Your task to perform on an android device: Go to CNN.com Image 0: 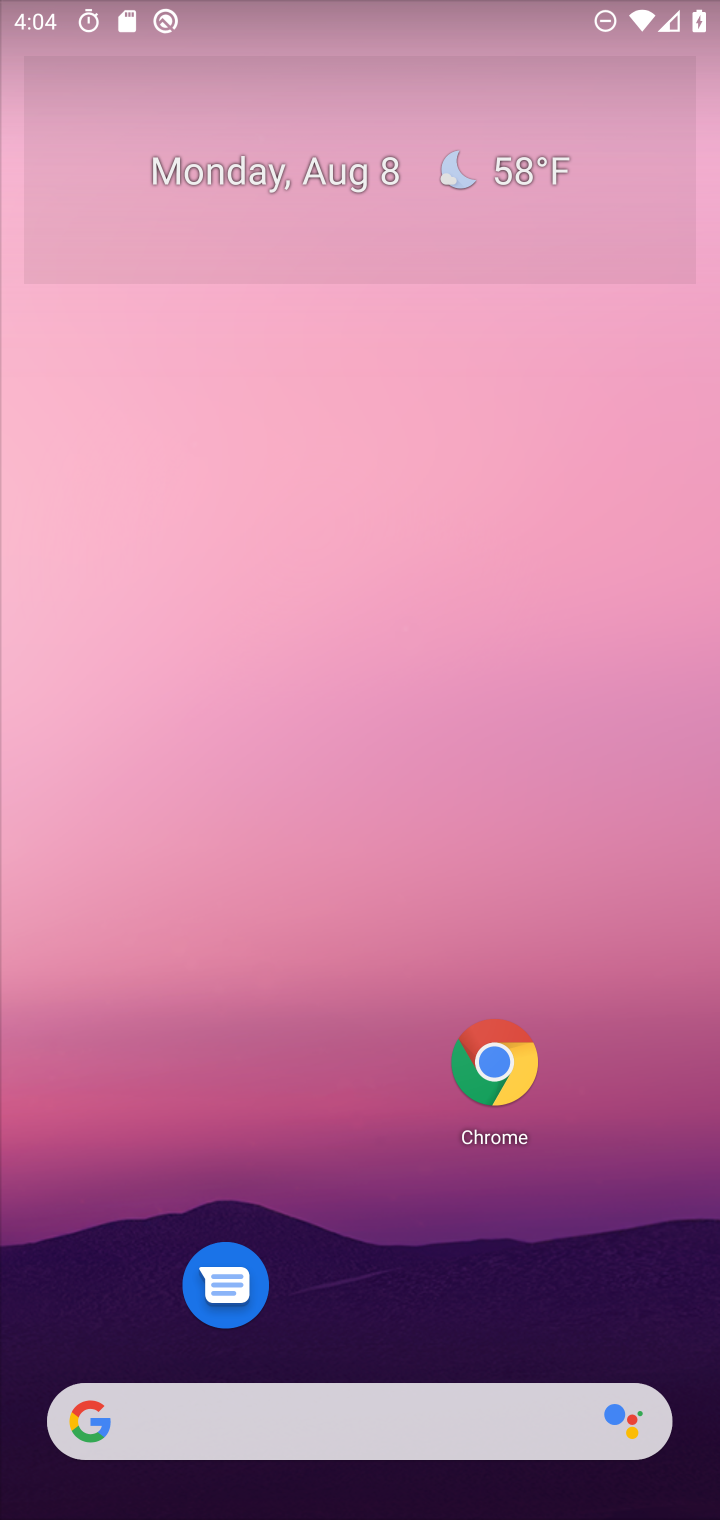
Step 0: click (518, 1067)
Your task to perform on an android device: Go to CNN.com Image 1: 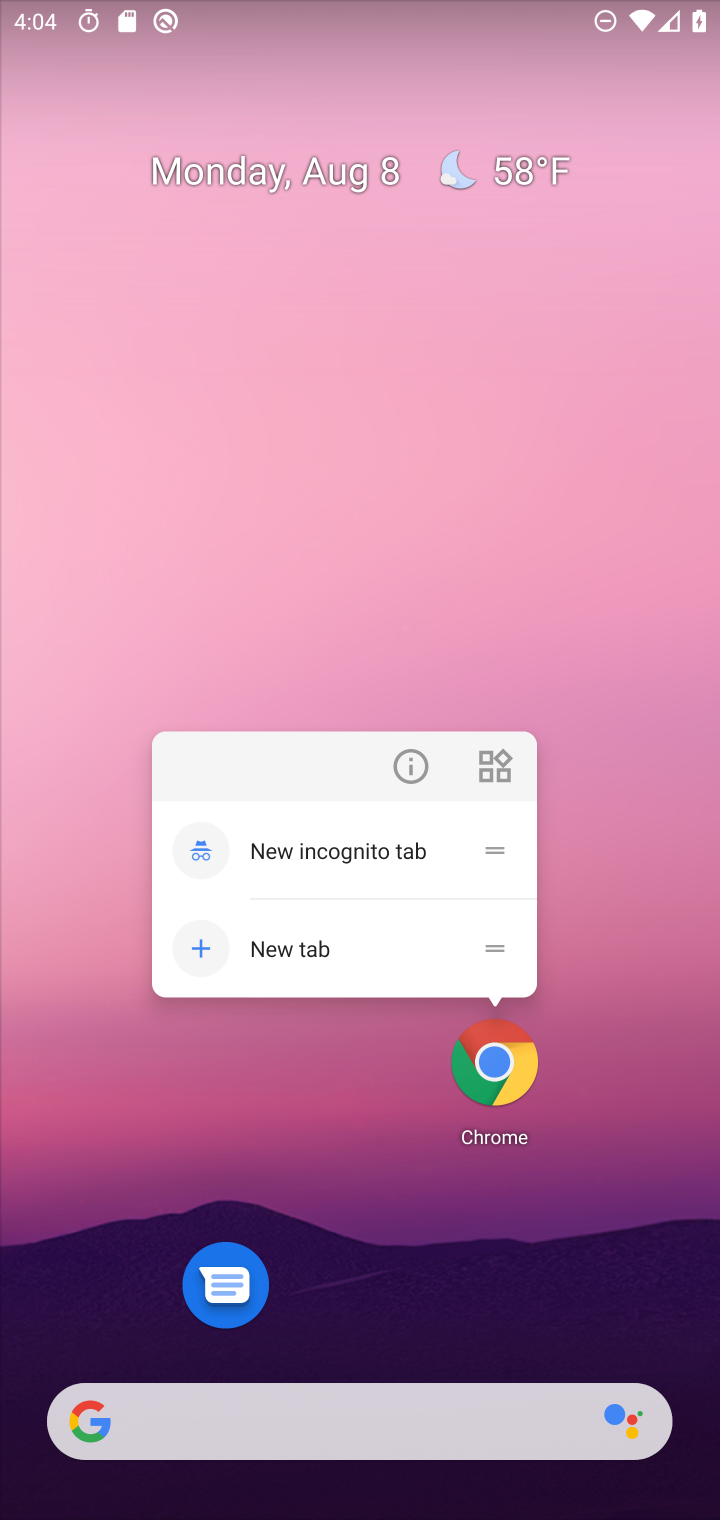
Step 1: click (492, 1055)
Your task to perform on an android device: Go to CNN.com Image 2: 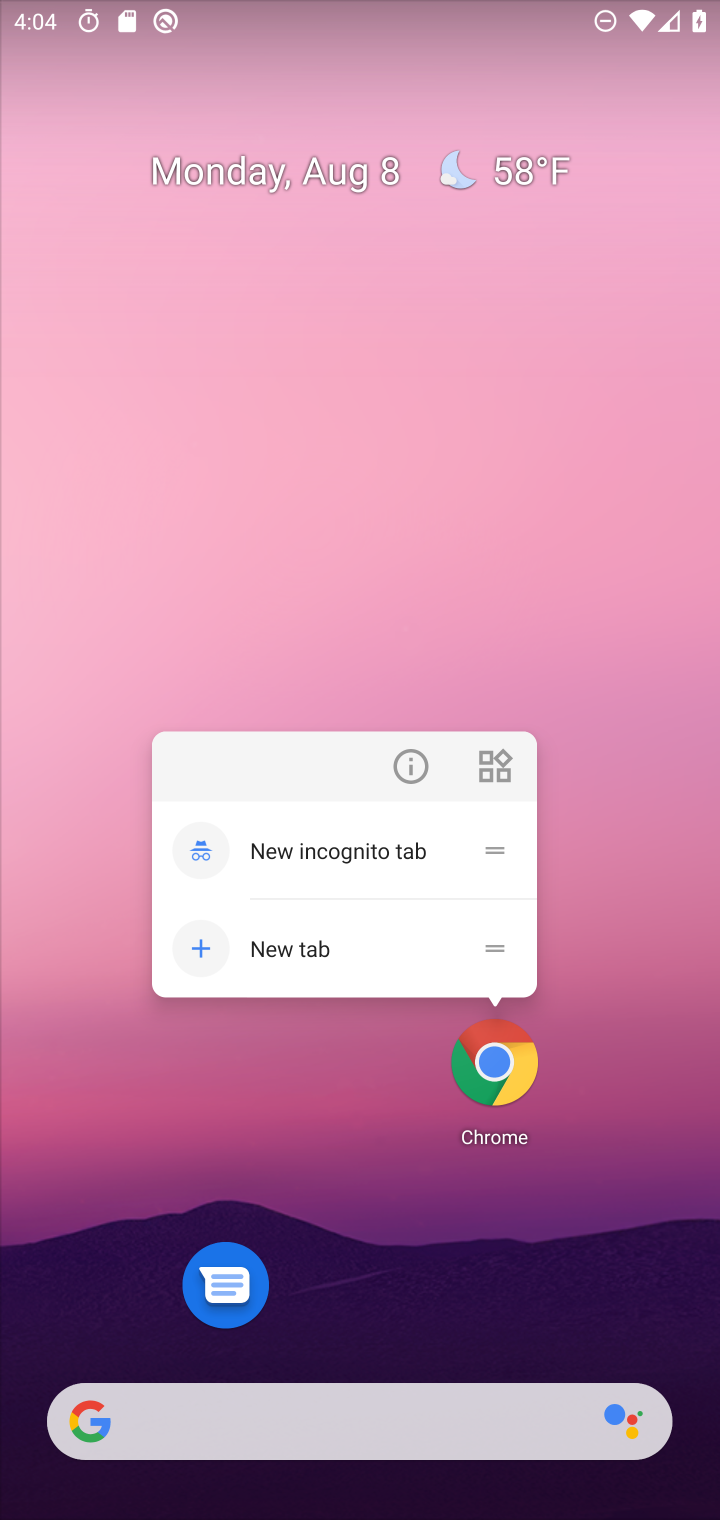
Step 2: click (492, 1055)
Your task to perform on an android device: Go to CNN.com Image 3: 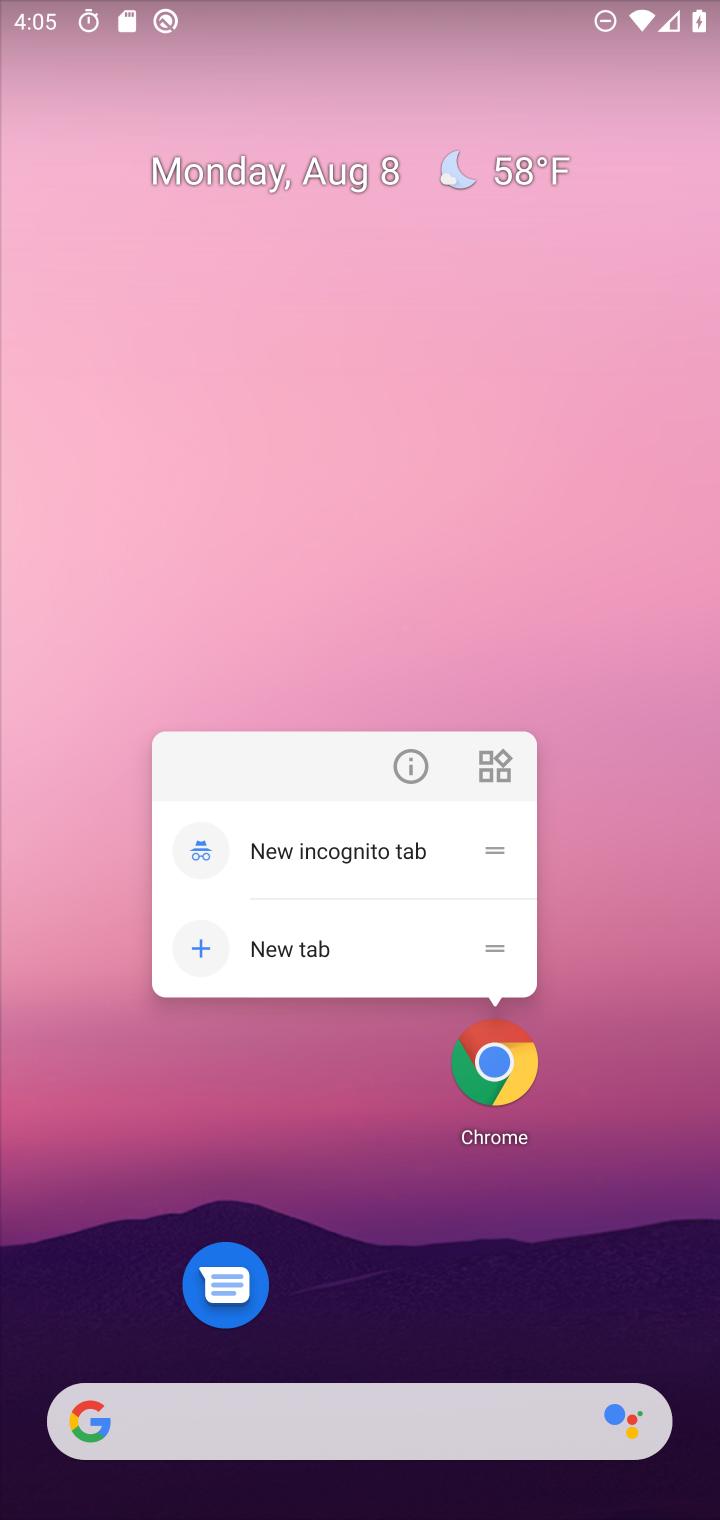
Step 3: click (492, 1055)
Your task to perform on an android device: Go to CNN.com Image 4: 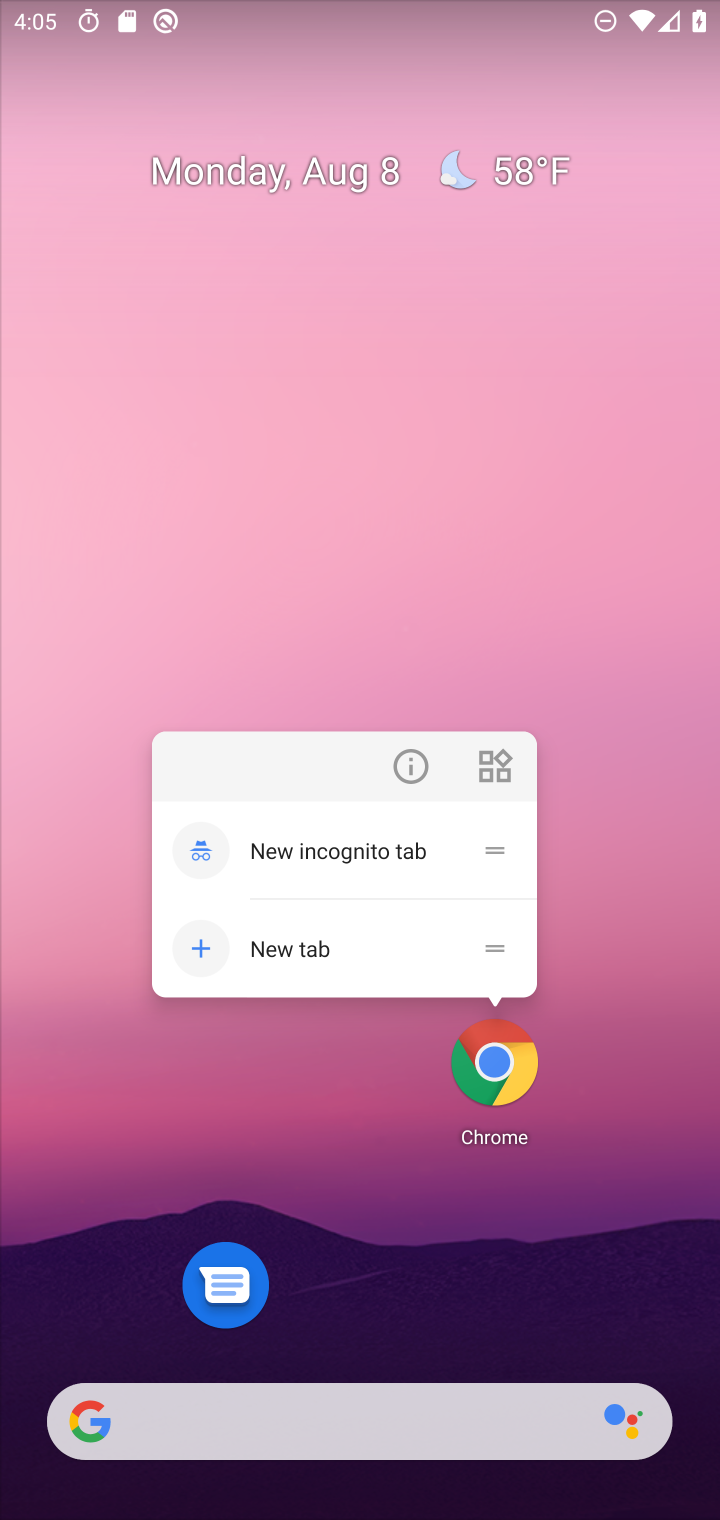
Step 4: click (492, 1075)
Your task to perform on an android device: Go to CNN.com Image 5: 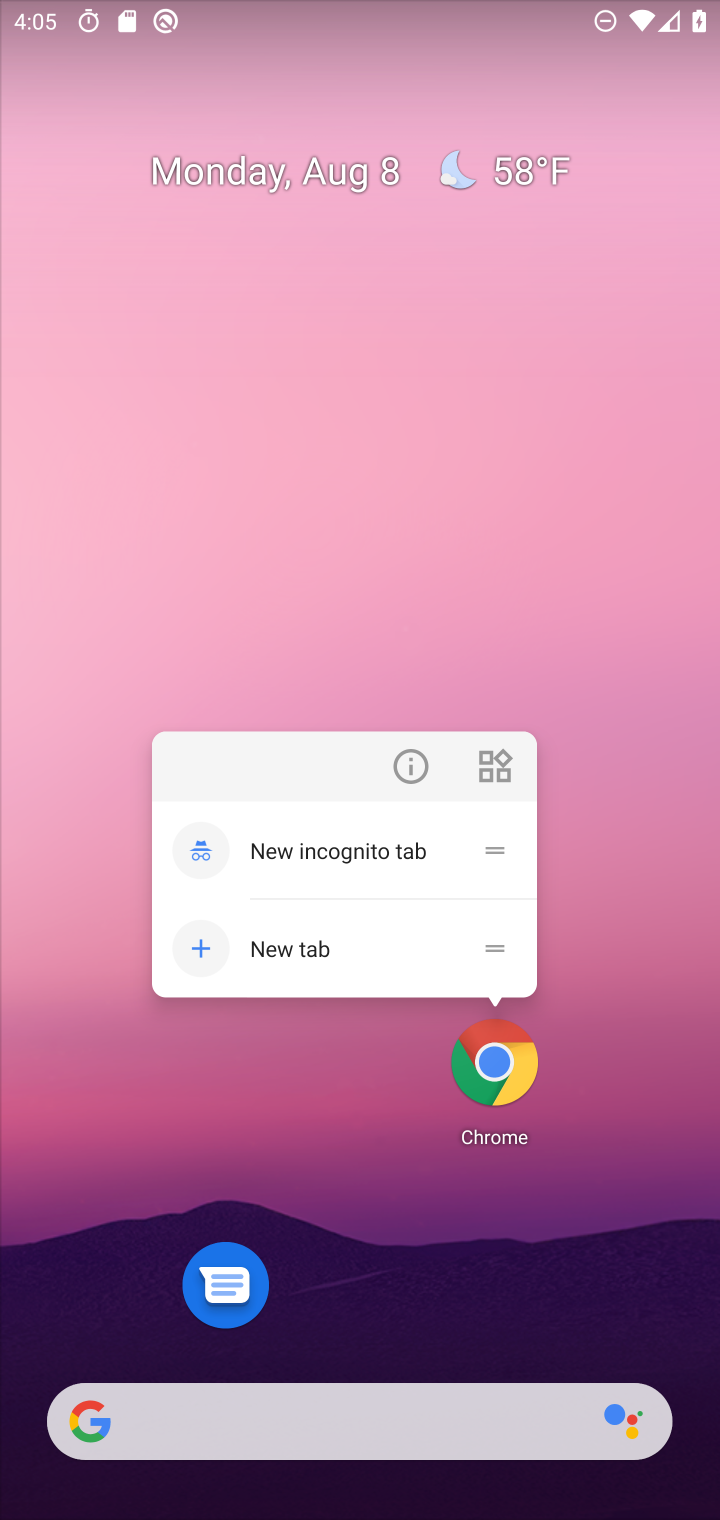
Step 5: click (498, 1056)
Your task to perform on an android device: Go to CNN.com Image 6: 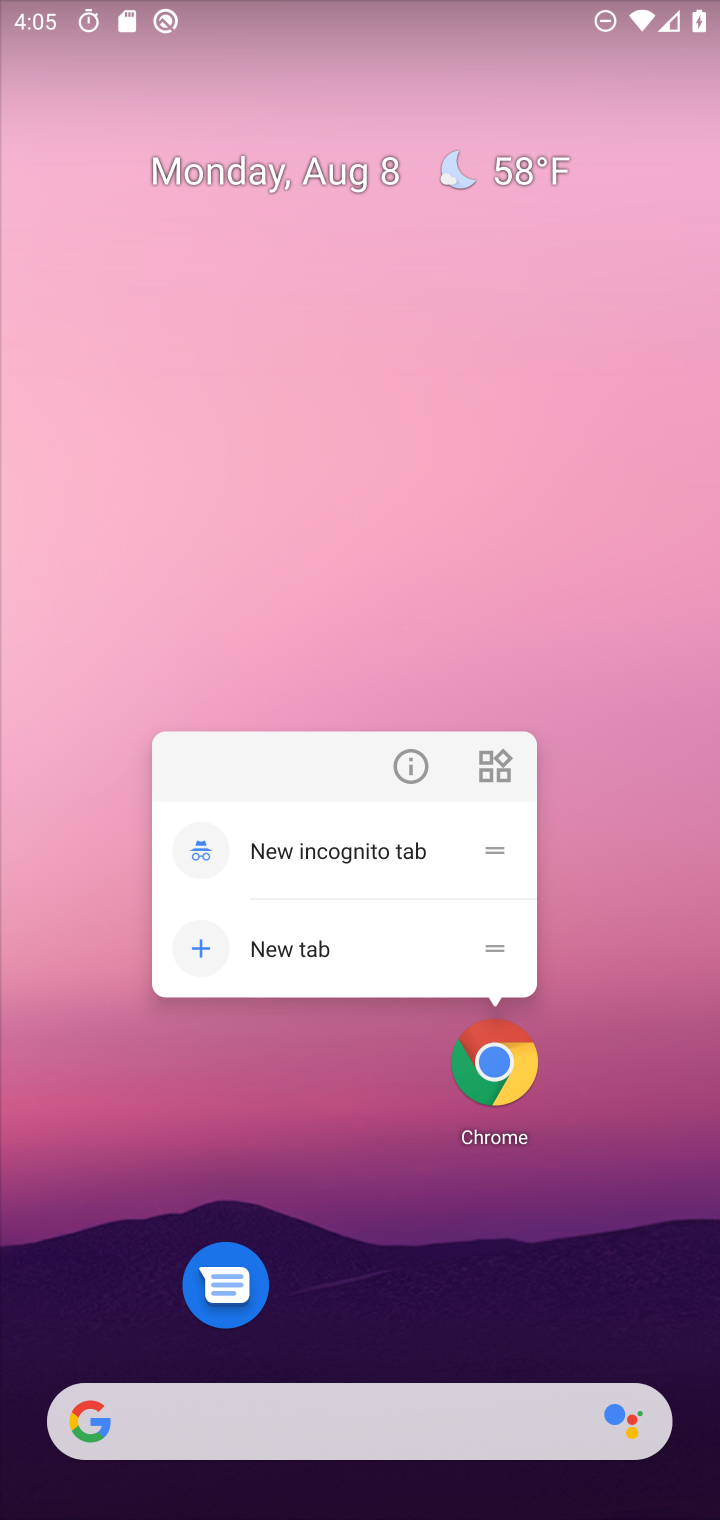
Step 6: click (505, 1054)
Your task to perform on an android device: Go to CNN.com Image 7: 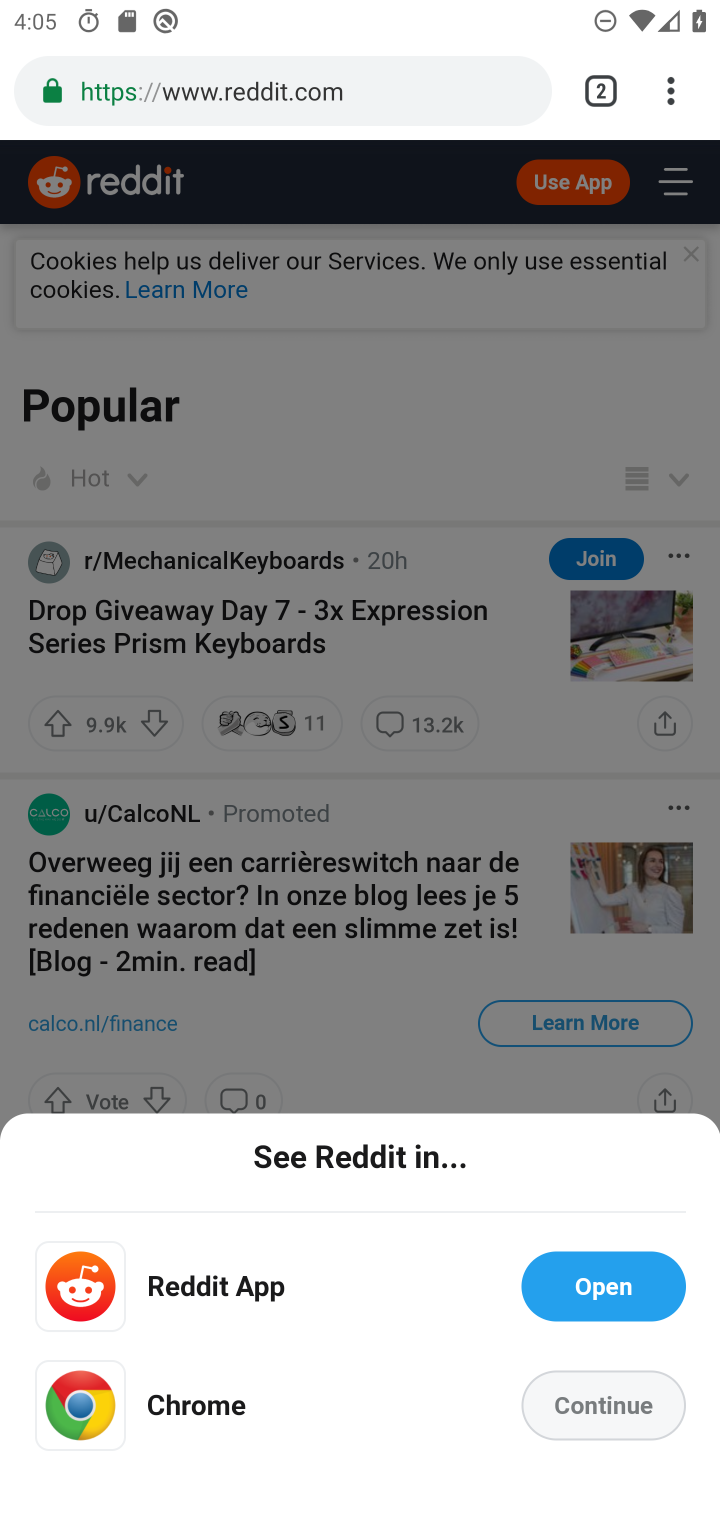
Step 7: click (594, 64)
Your task to perform on an android device: Go to CNN.com Image 8: 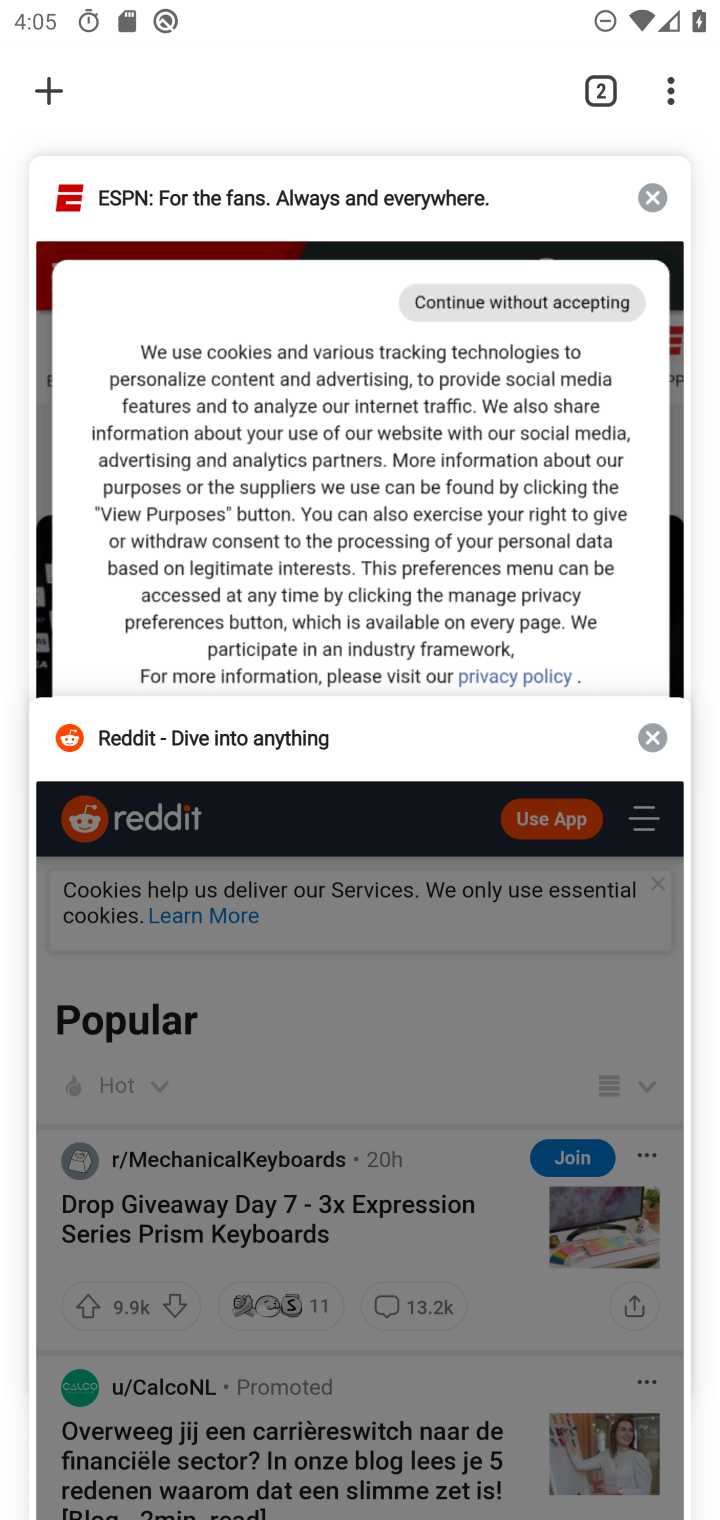
Step 8: click (65, 88)
Your task to perform on an android device: Go to CNN.com Image 9: 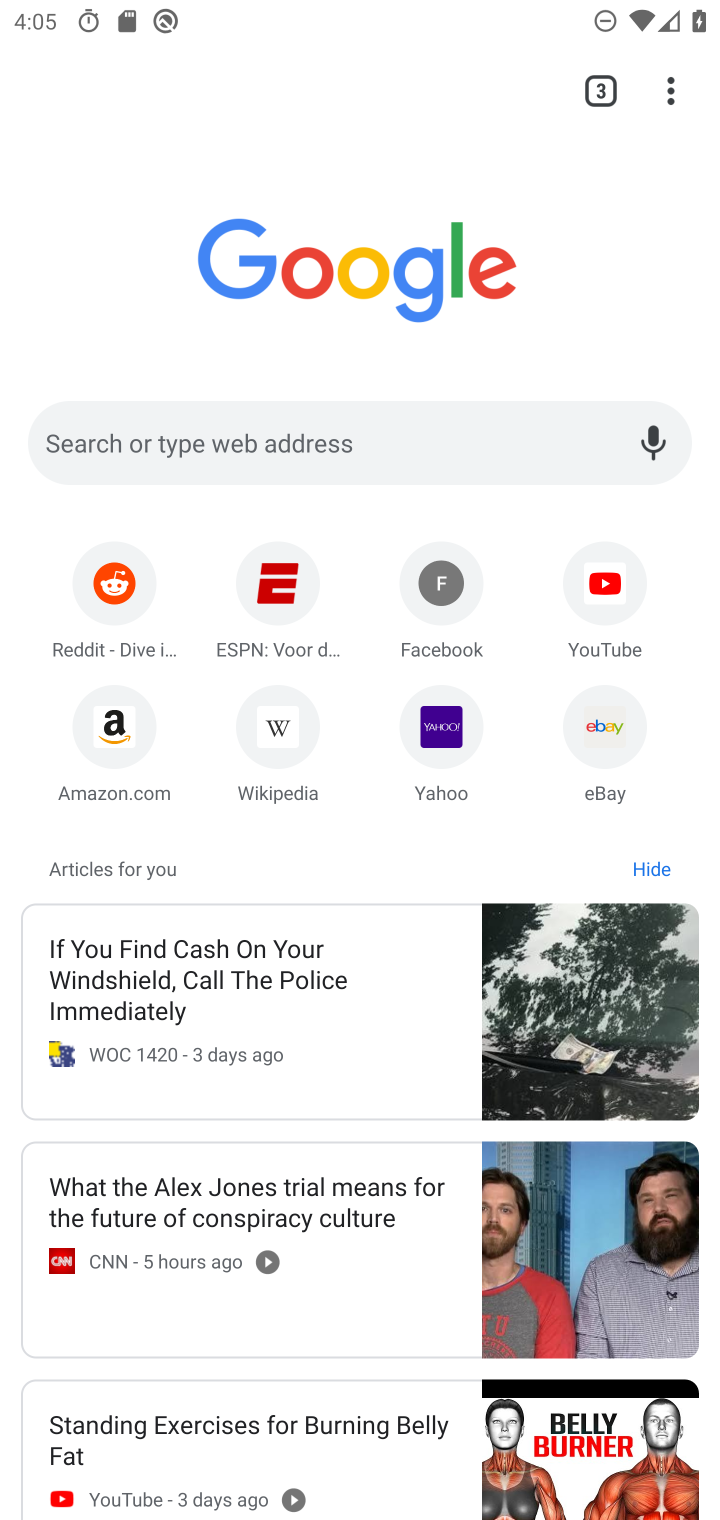
Step 9: click (313, 438)
Your task to perform on an android device: Go to CNN.com Image 10: 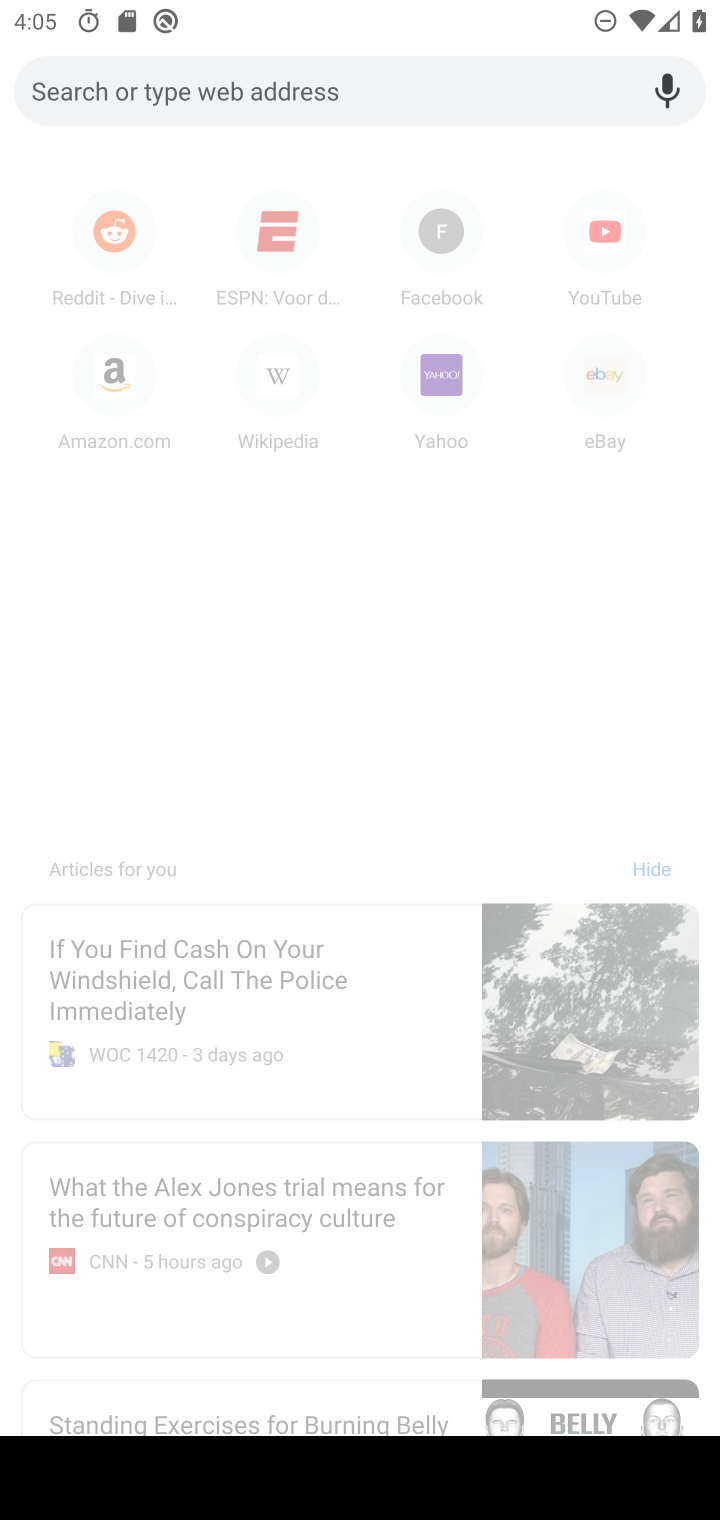
Step 10: type "cnn.com"
Your task to perform on an android device: Go to CNN.com Image 11: 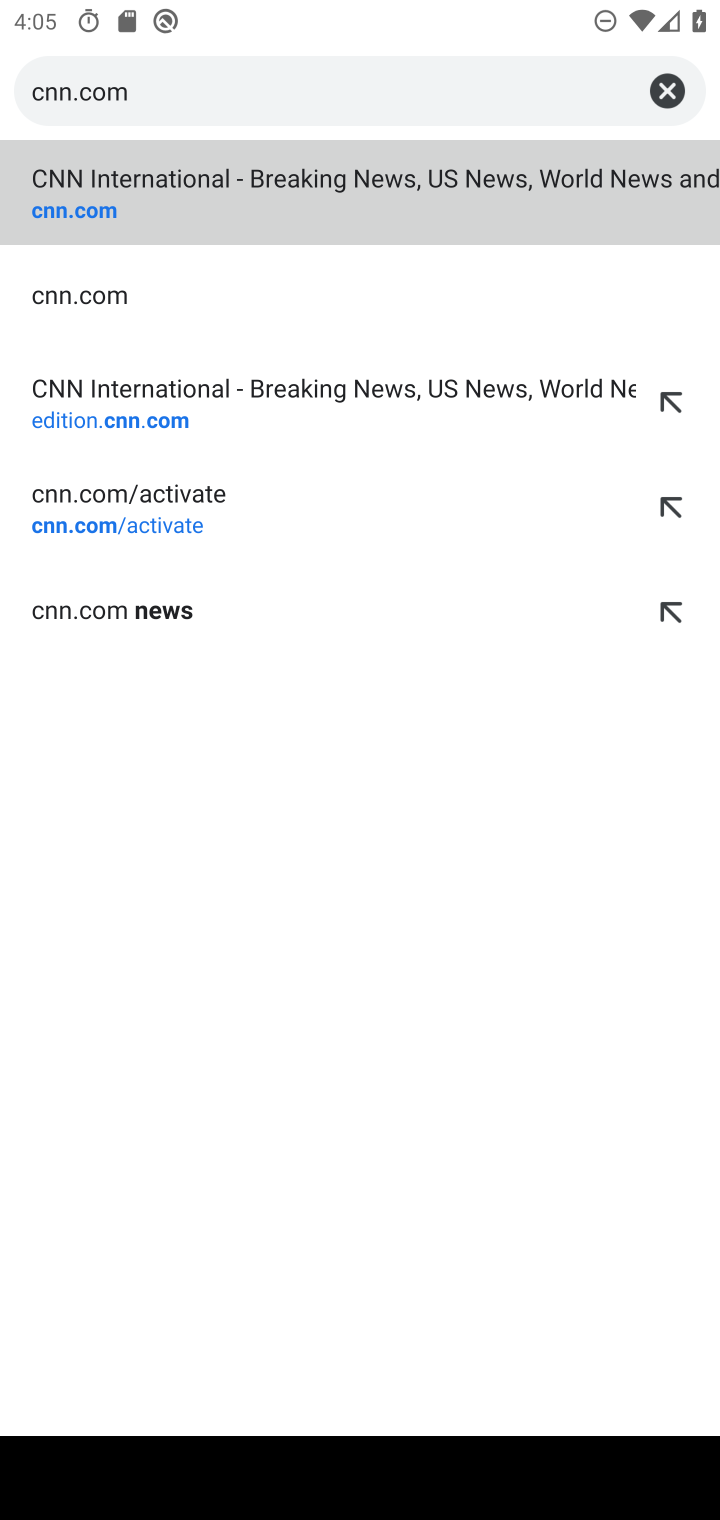
Step 11: click (241, 151)
Your task to perform on an android device: Go to CNN.com Image 12: 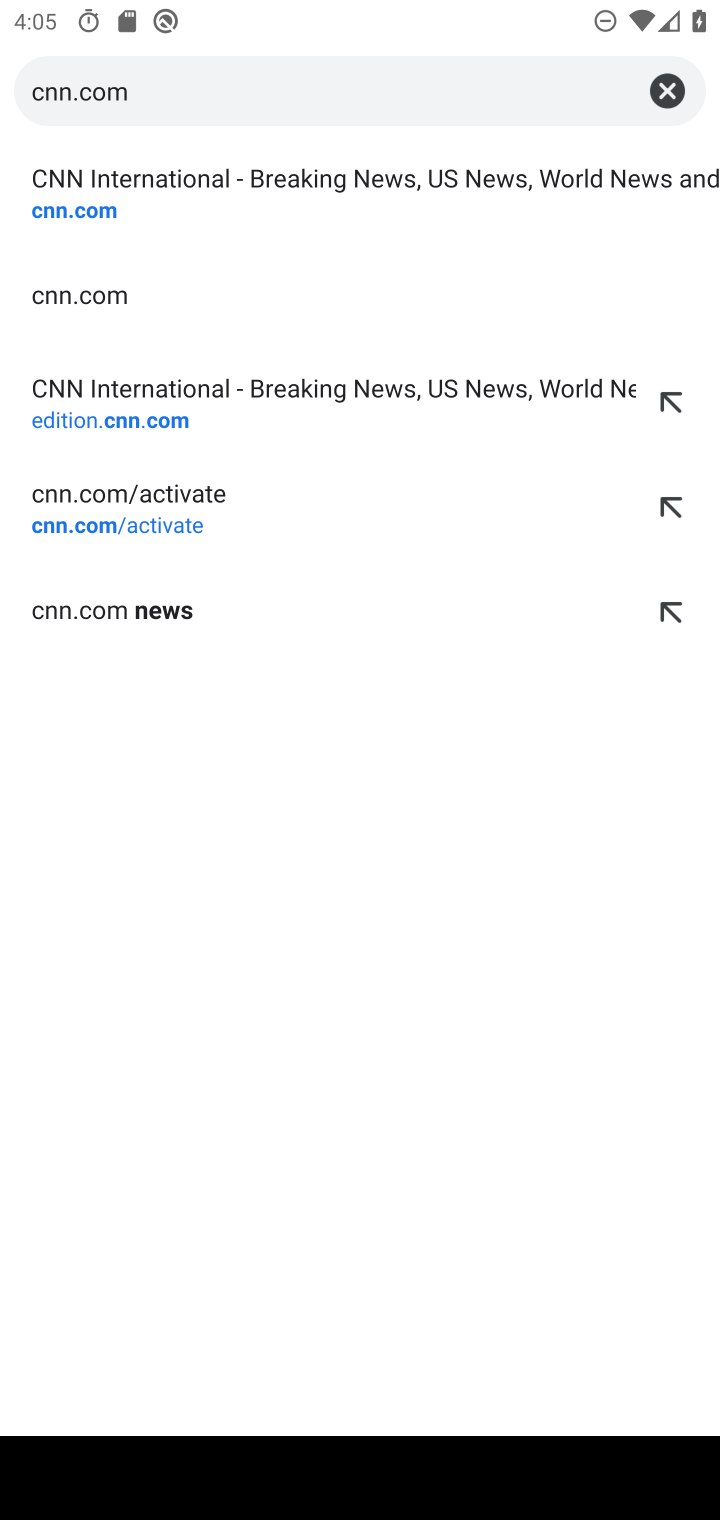
Step 12: click (129, 165)
Your task to perform on an android device: Go to CNN.com Image 13: 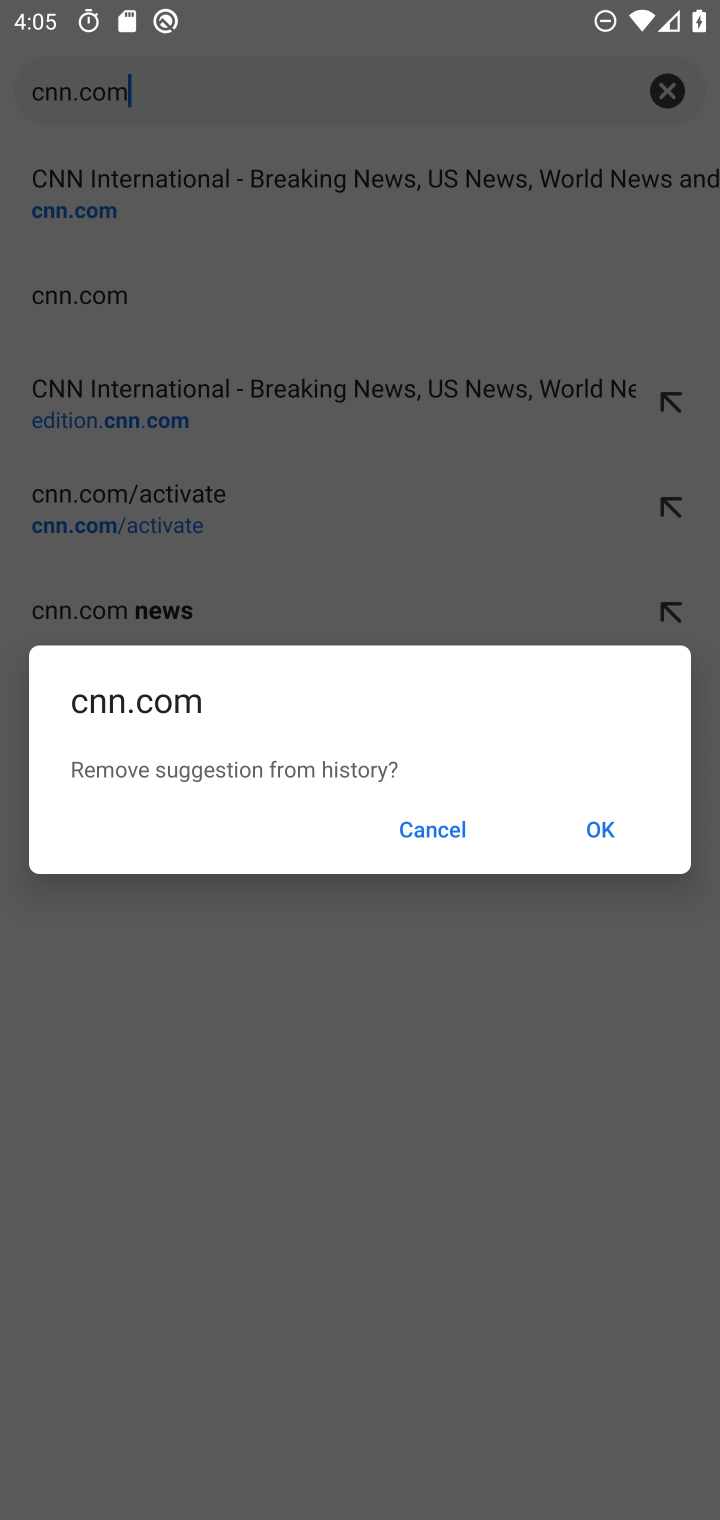
Step 13: click (435, 832)
Your task to perform on an android device: Go to CNN.com Image 14: 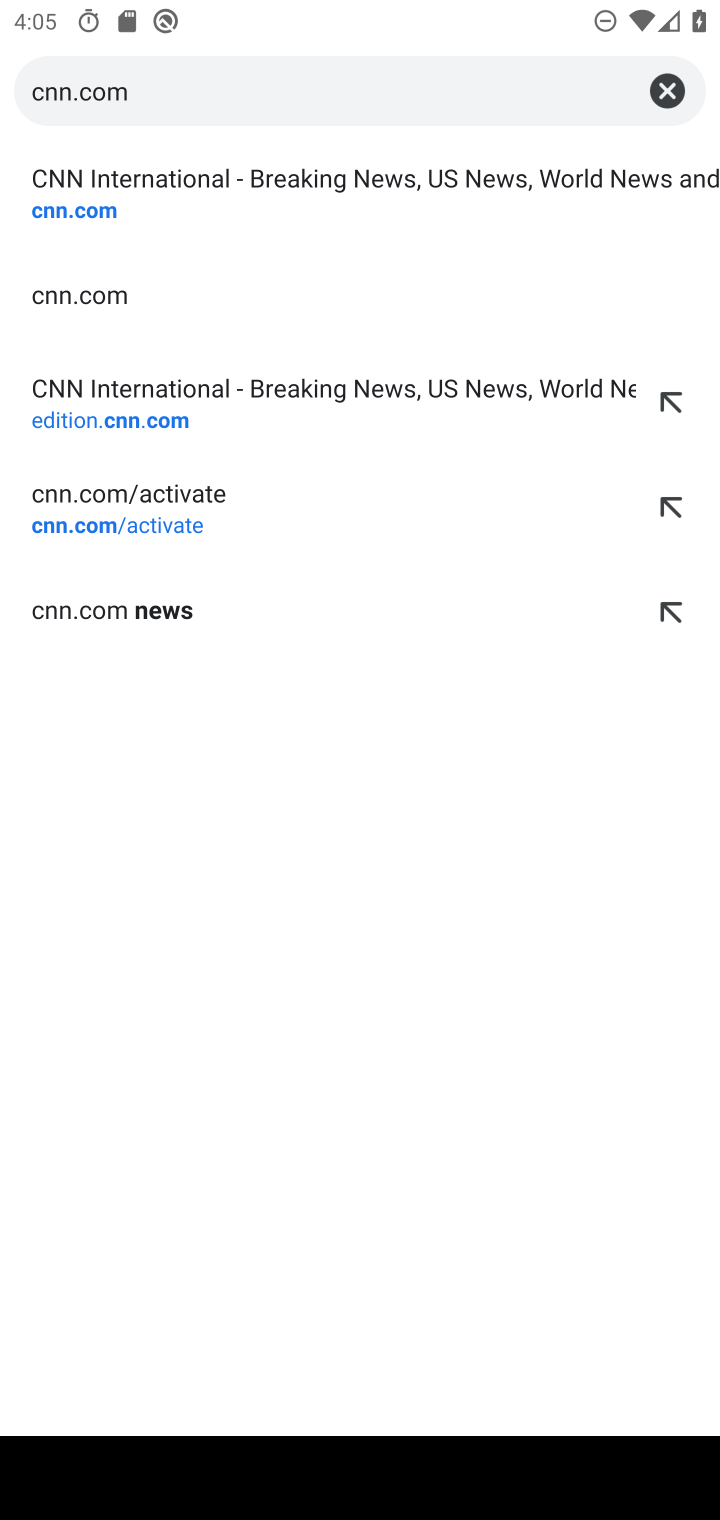
Step 14: click (198, 207)
Your task to perform on an android device: Go to CNN.com Image 15: 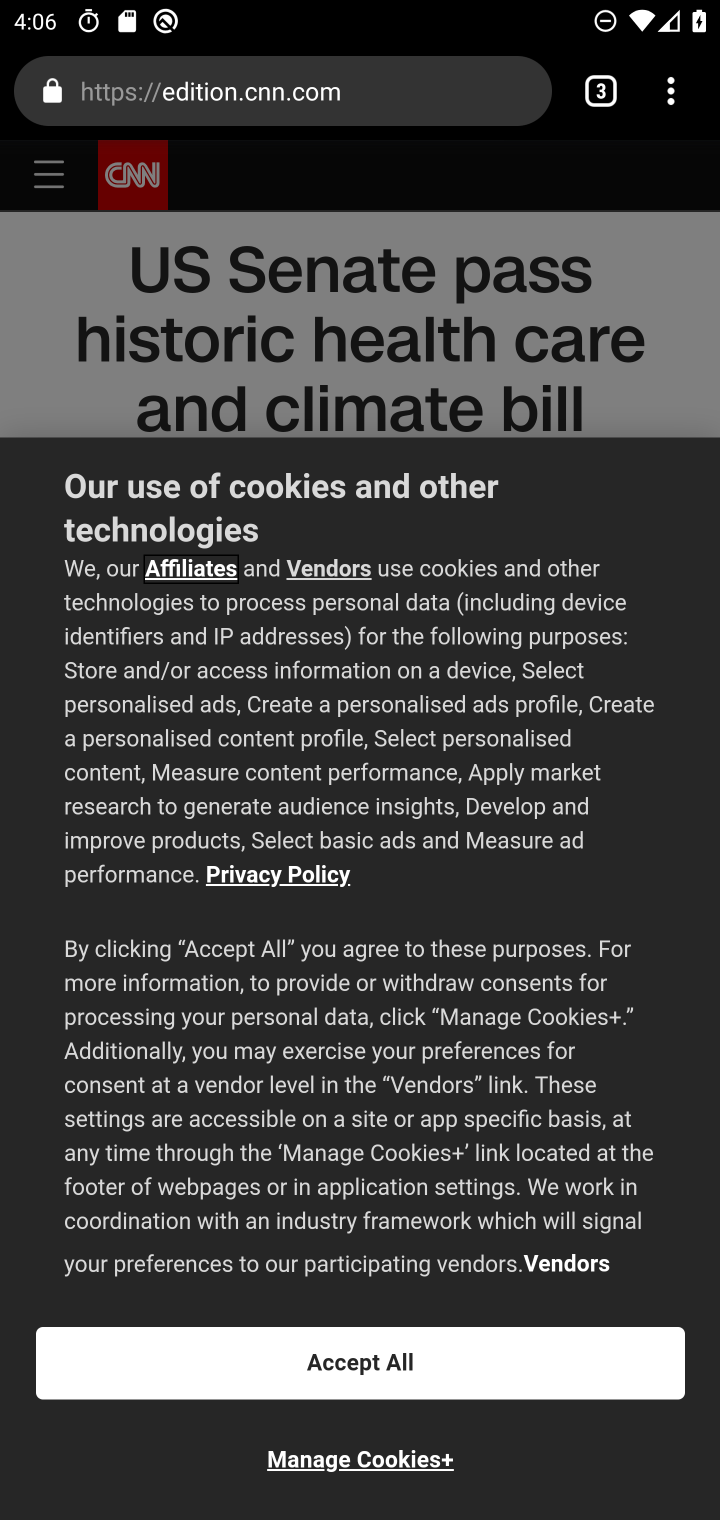
Step 15: task complete